Your task to perform on an android device: When is my next appointment? Image 0: 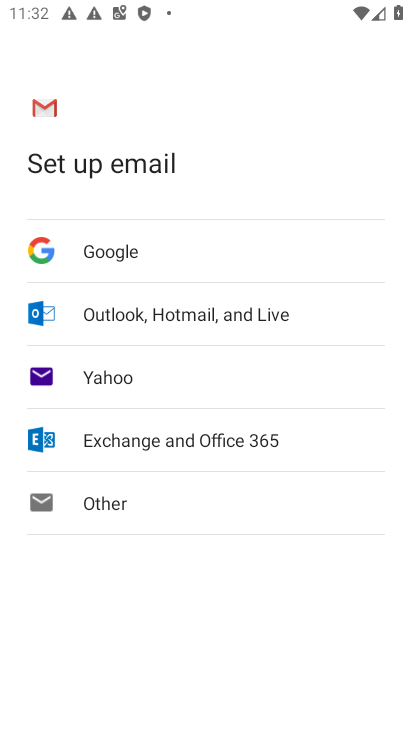
Step 0: press home button
Your task to perform on an android device: When is my next appointment? Image 1: 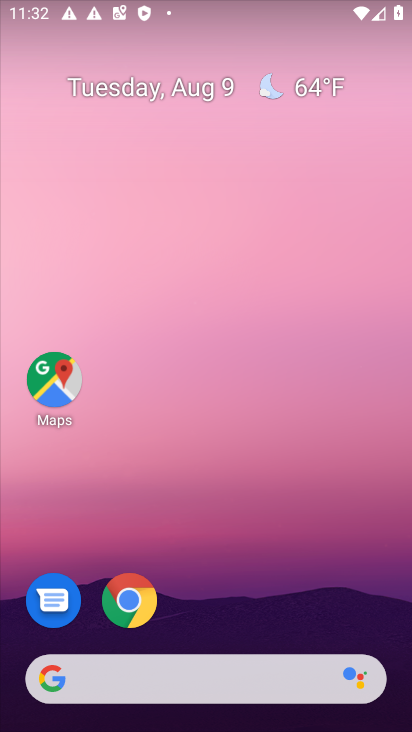
Step 1: click (98, 690)
Your task to perform on an android device: When is my next appointment? Image 2: 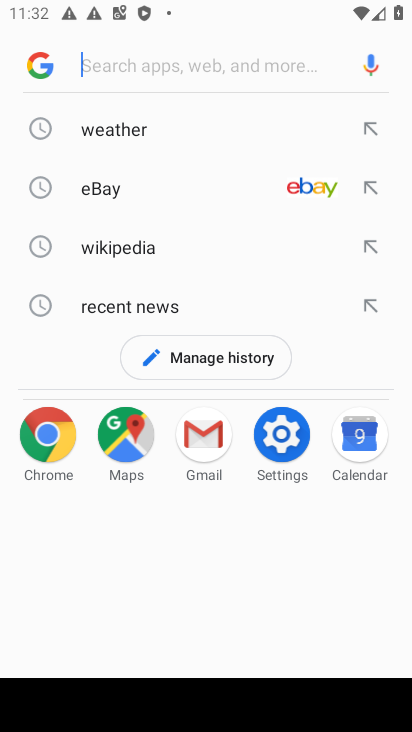
Step 2: press home button
Your task to perform on an android device: When is my next appointment? Image 3: 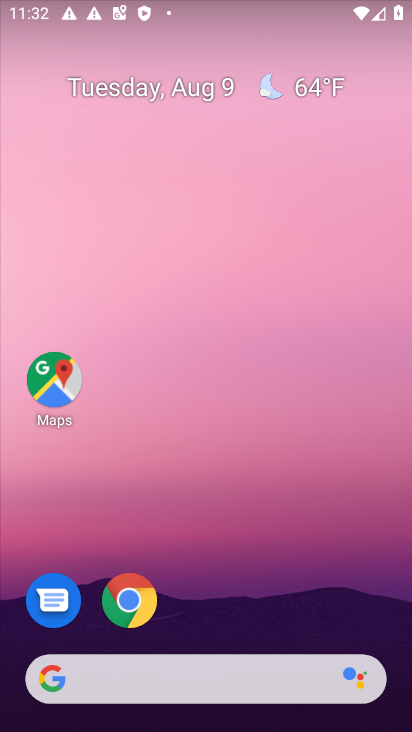
Step 3: drag from (16, 707) to (162, 410)
Your task to perform on an android device: When is my next appointment? Image 4: 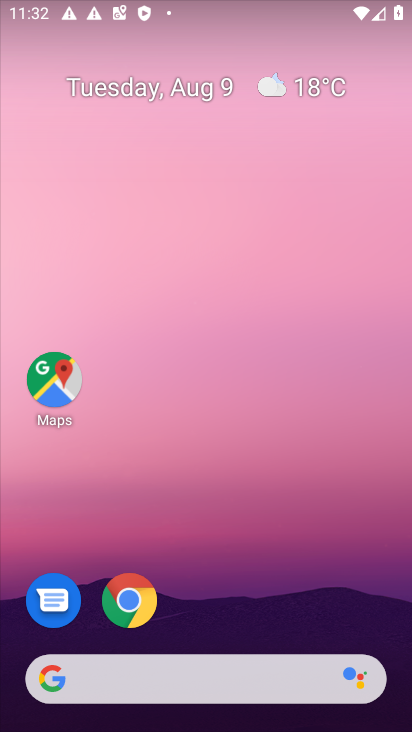
Step 4: drag from (5, 698) to (202, 329)
Your task to perform on an android device: When is my next appointment? Image 5: 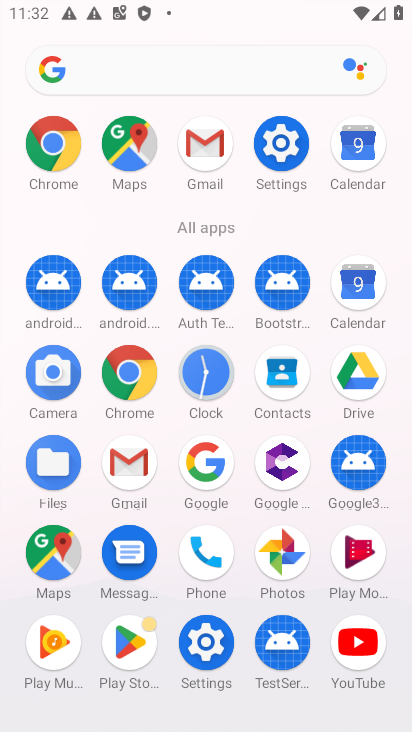
Step 5: click (354, 308)
Your task to perform on an android device: When is my next appointment? Image 6: 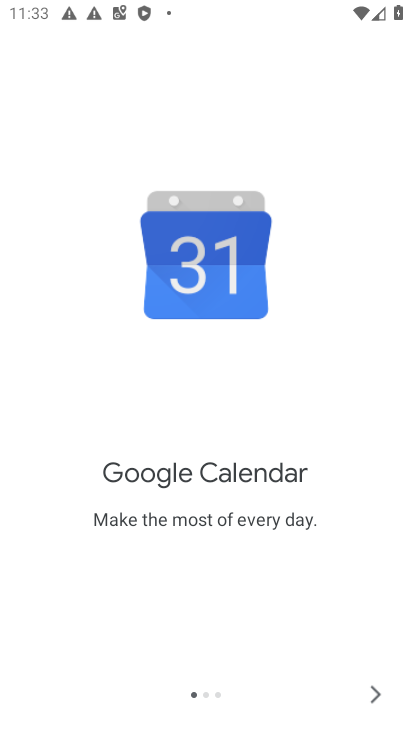
Step 6: click (371, 677)
Your task to perform on an android device: When is my next appointment? Image 7: 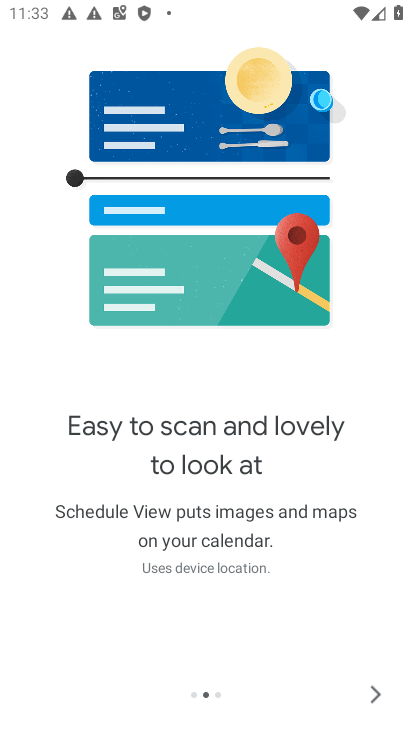
Step 7: click (380, 694)
Your task to perform on an android device: When is my next appointment? Image 8: 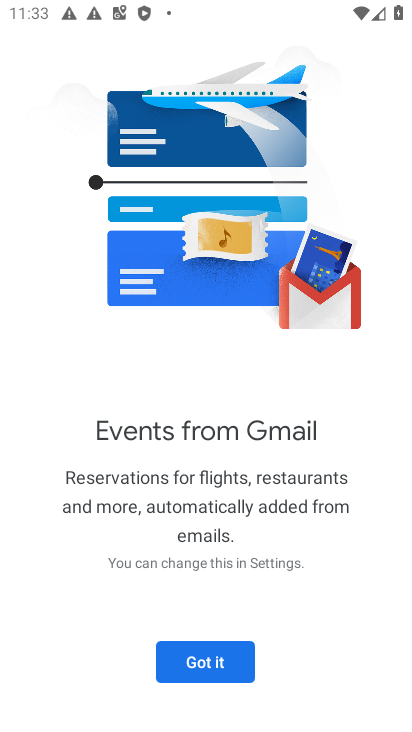
Step 8: click (209, 652)
Your task to perform on an android device: When is my next appointment? Image 9: 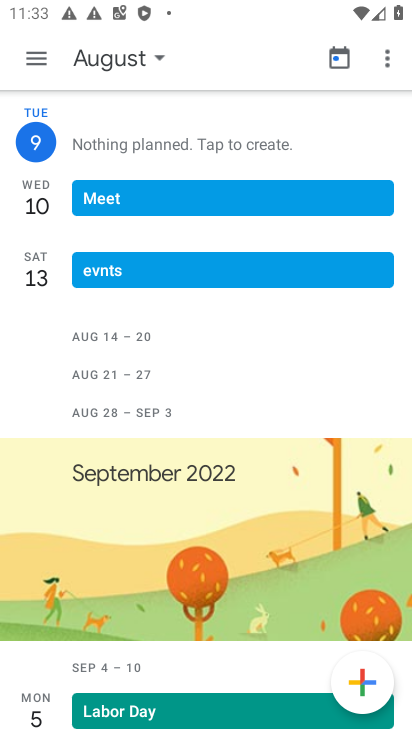
Step 9: click (155, 69)
Your task to perform on an android device: When is my next appointment? Image 10: 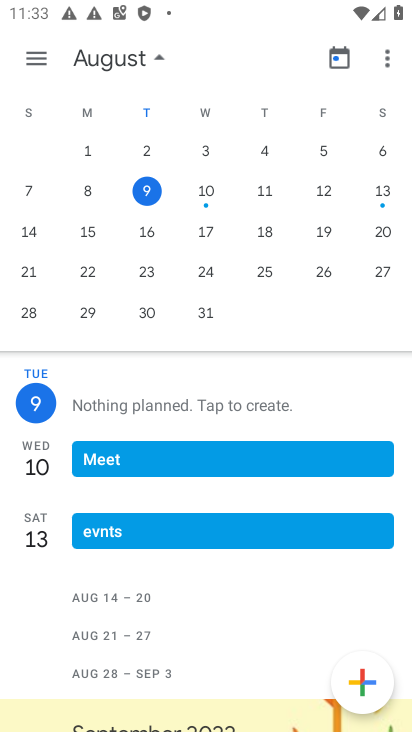
Step 10: task complete